Your task to perform on an android device: Check the news Image 0: 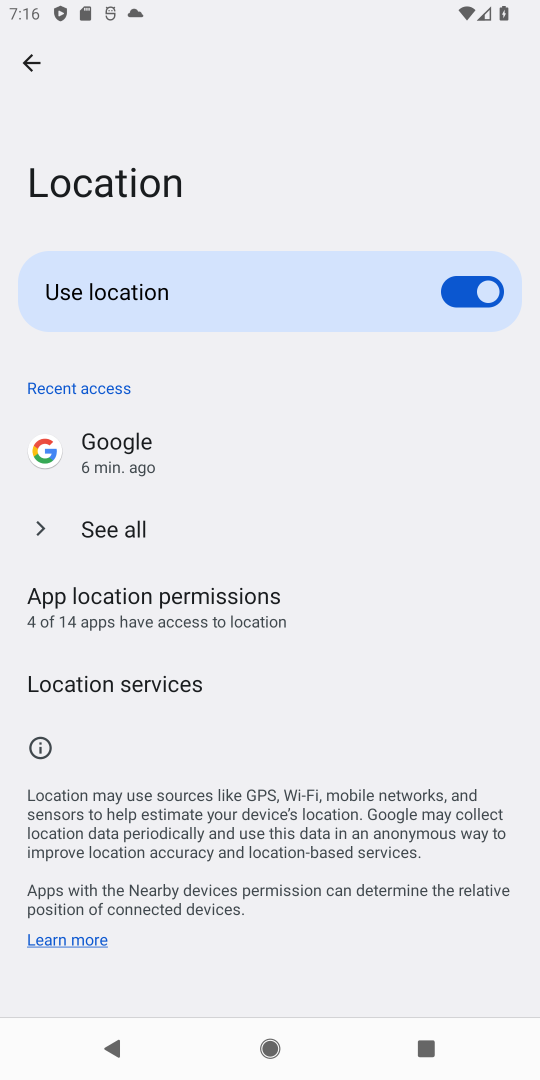
Step 0: press back button
Your task to perform on an android device: Check the news Image 1: 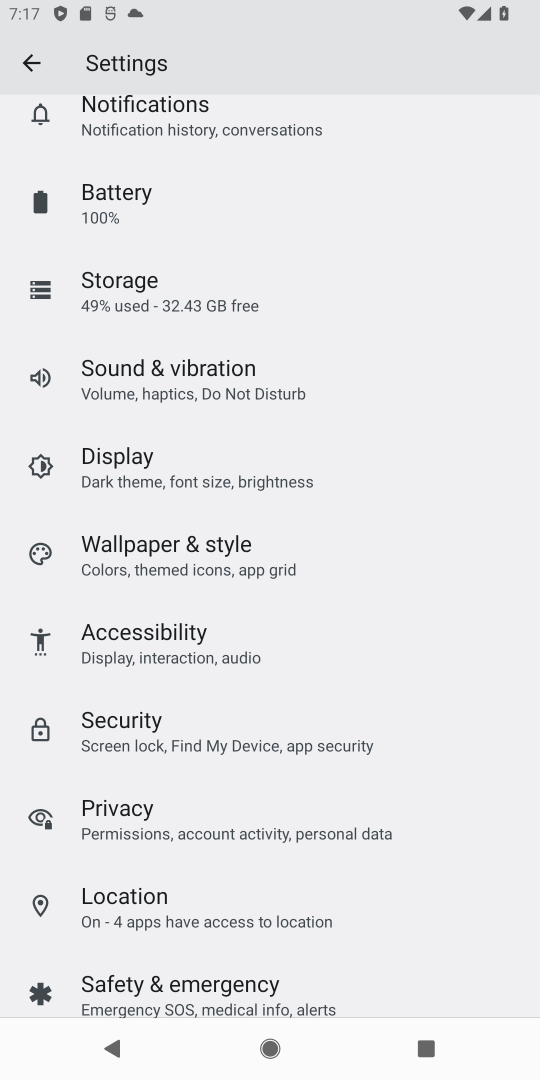
Step 1: press back button
Your task to perform on an android device: Check the news Image 2: 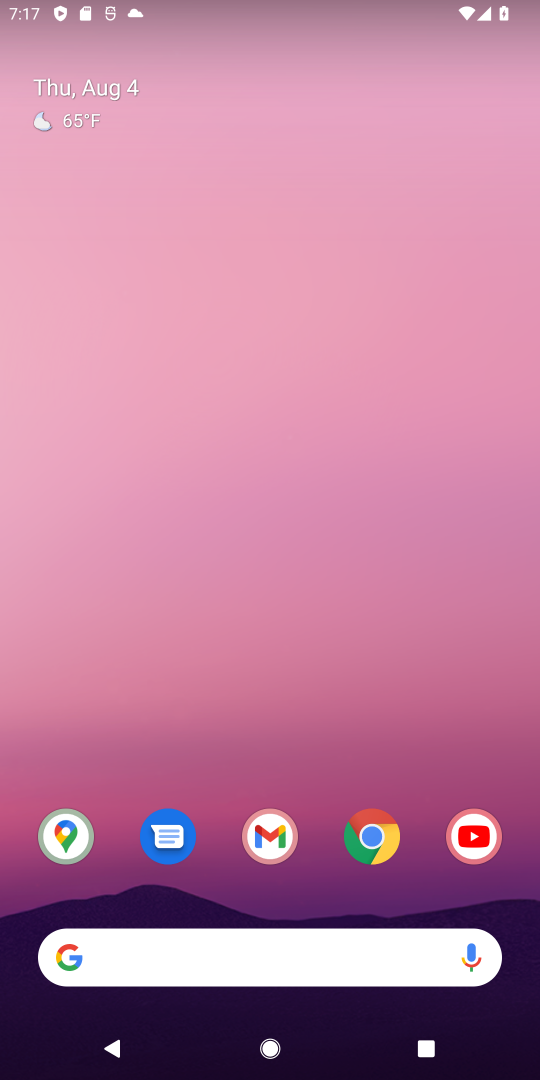
Step 2: click (200, 959)
Your task to perform on an android device: Check the news Image 3: 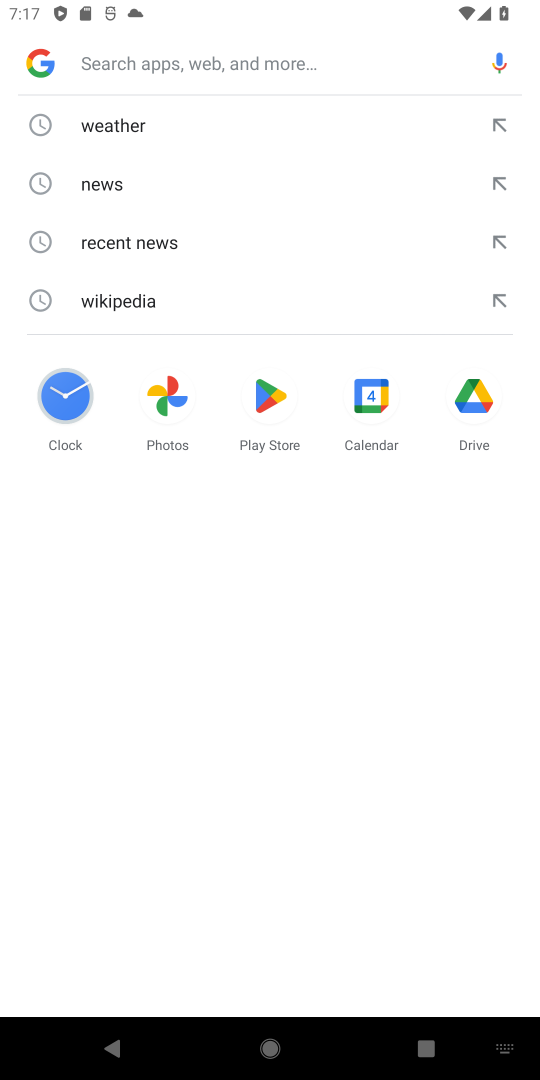
Step 3: click (156, 191)
Your task to perform on an android device: Check the news Image 4: 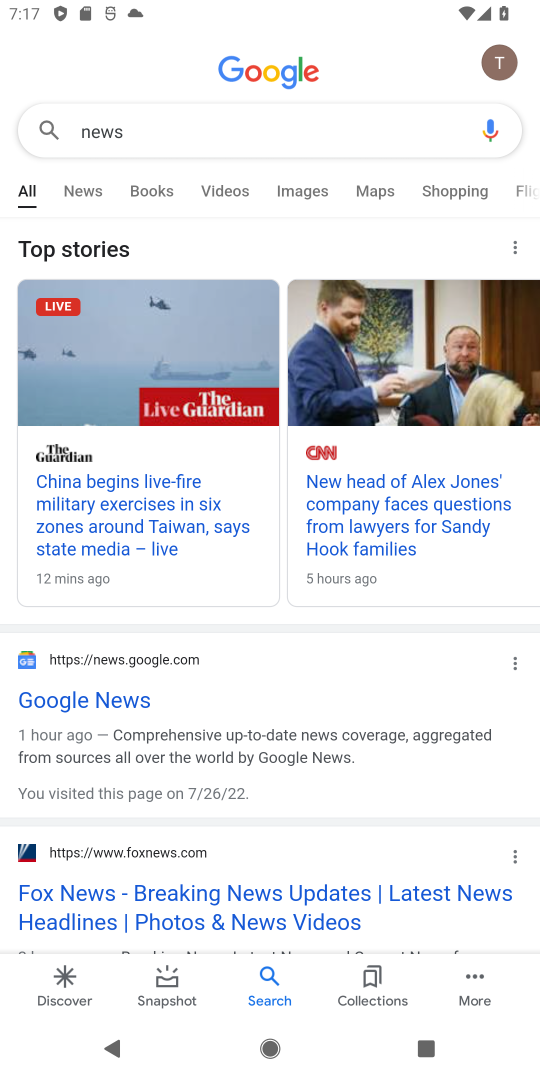
Step 4: task complete